Your task to perform on an android device: open sync settings in chrome Image 0: 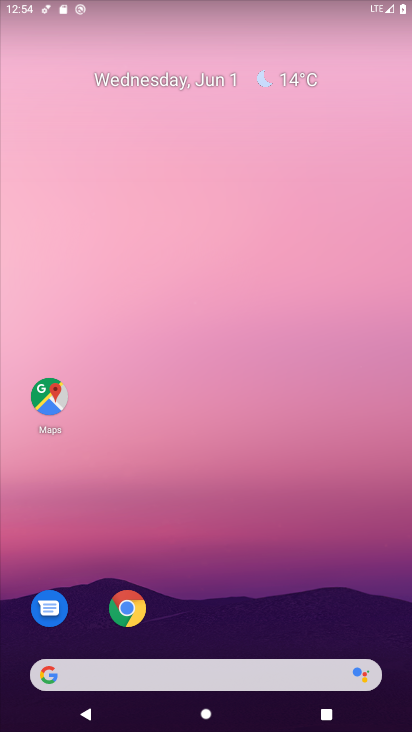
Step 0: click (134, 613)
Your task to perform on an android device: open sync settings in chrome Image 1: 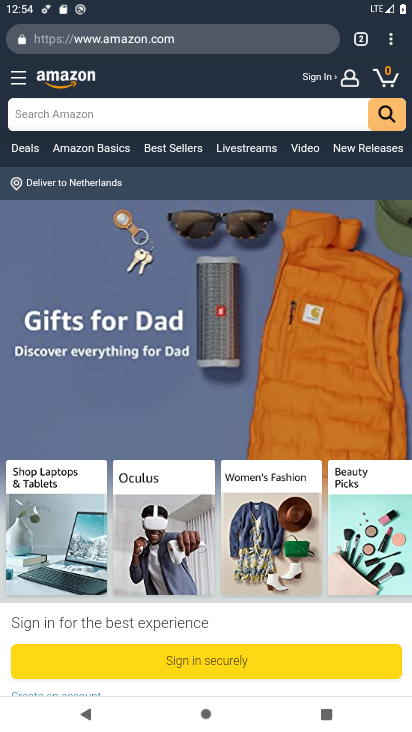
Step 1: click (394, 39)
Your task to perform on an android device: open sync settings in chrome Image 2: 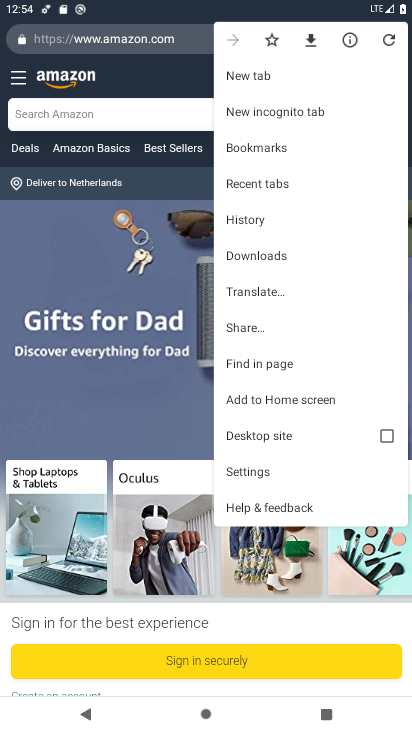
Step 2: click (256, 476)
Your task to perform on an android device: open sync settings in chrome Image 3: 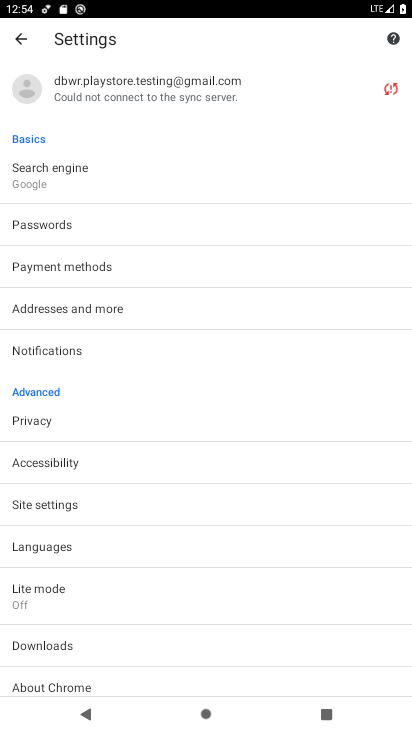
Step 3: click (140, 91)
Your task to perform on an android device: open sync settings in chrome Image 4: 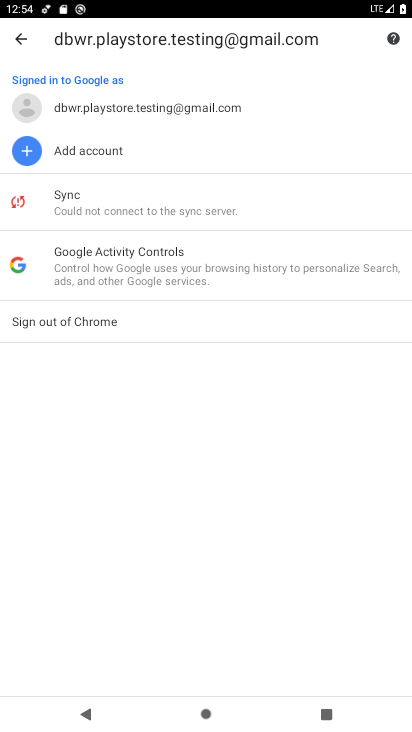
Step 4: click (124, 207)
Your task to perform on an android device: open sync settings in chrome Image 5: 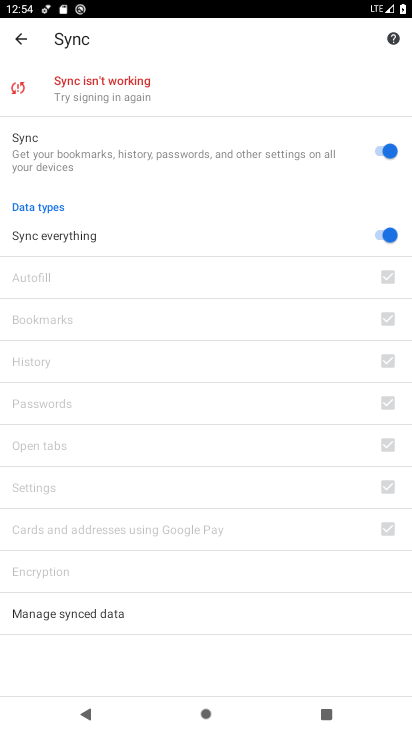
Step 5: click (144, 84)
Your task to perform on an android device: open sync settings in chrome Image 6: 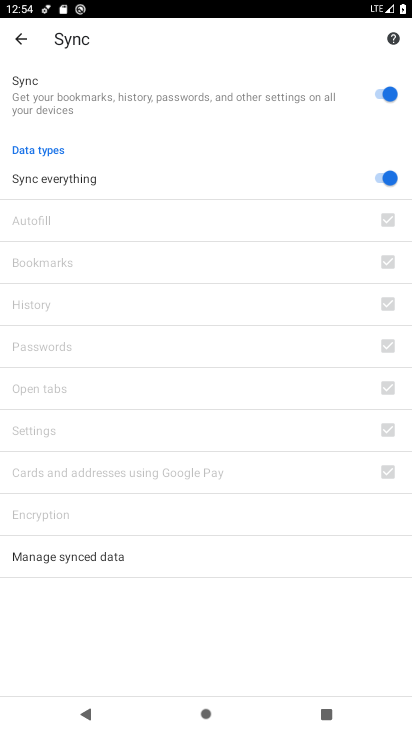
Step 6: task complete